Your task to perform on an android device: Open calendar and show me the first week of next month Image 0: 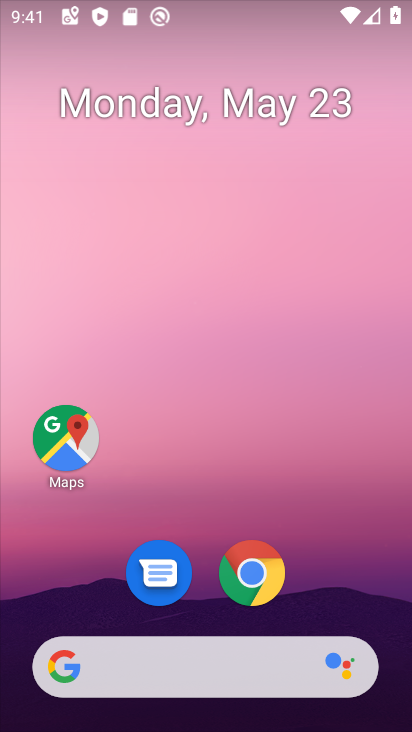
Step 0: drag from (369, 442) to (361, 133)
Your task to perform on an android device: Open calendar and show me the first week of next month Image 1: 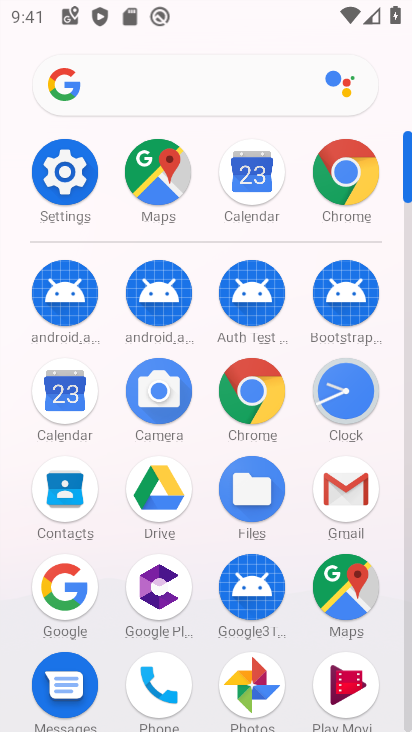
Step 1: click (77, 404)
Your task to perform on an android device: Open calendar and show me the first week of next month Image 2: 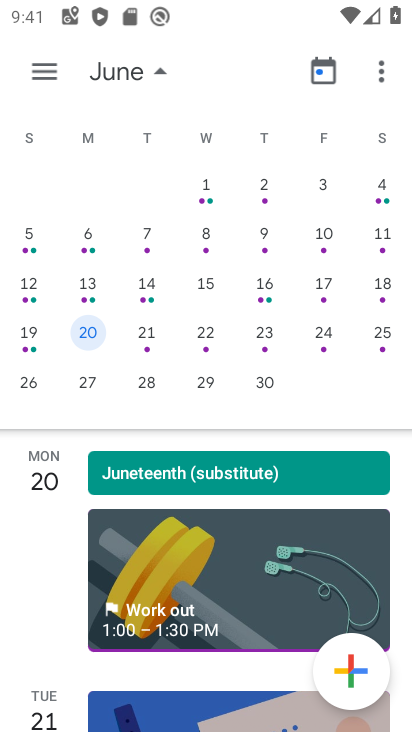
Step 2: click (204, 180)
Your task to perform on an android device: Open calendar and show me the first week of next month Image 3: 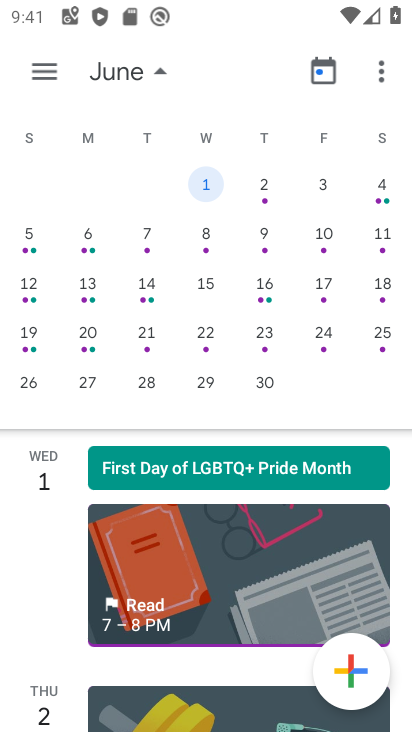
Step 3: task complete